Your task to perform on an android device: turn on airplane mode Image 0: 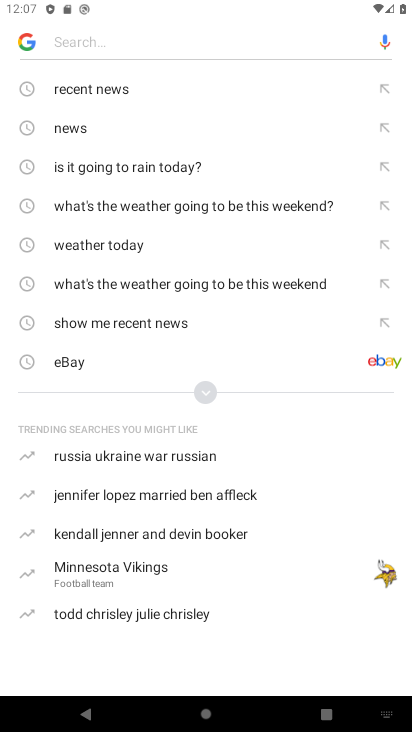
Step 0: press home button
Your task to perform on an android device: turn on airplane mode Image 1: 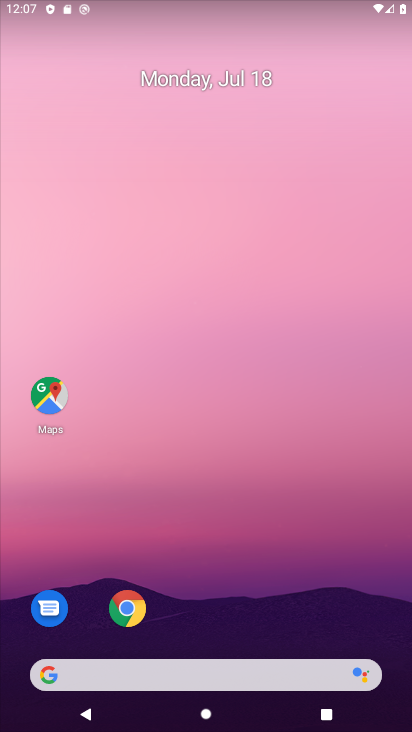
Step 1: drag from (237, 657) to (277, 49)
Your task to perform on an android device: turn on airplane mode Image 2: 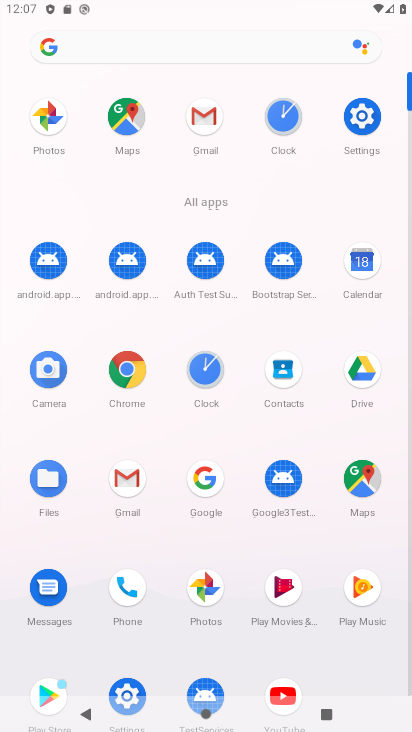
Step 2: click (129, 688)
Your task to perform on an android device: turn on airplane mode Image 3: 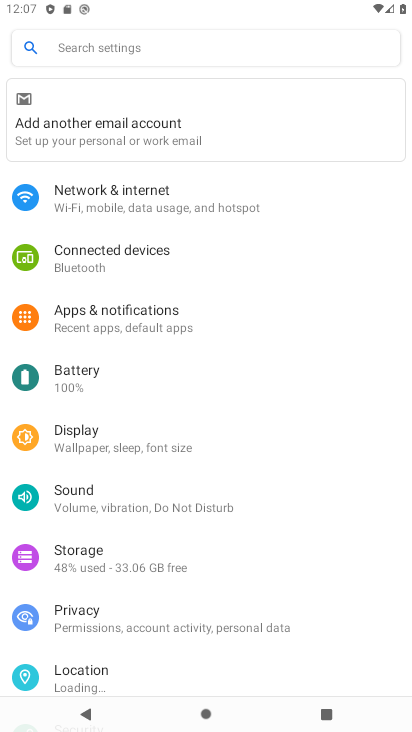
Step 3: click (189, 190)
Your task to perform on an android device: turn on airplane mode Image 4: 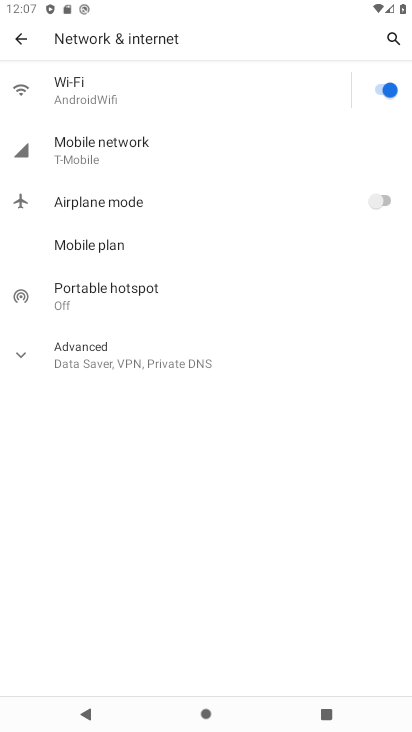
Step 4: click (394, 203)
Your task to perform on an android device: turn on airplane mode Image 5: 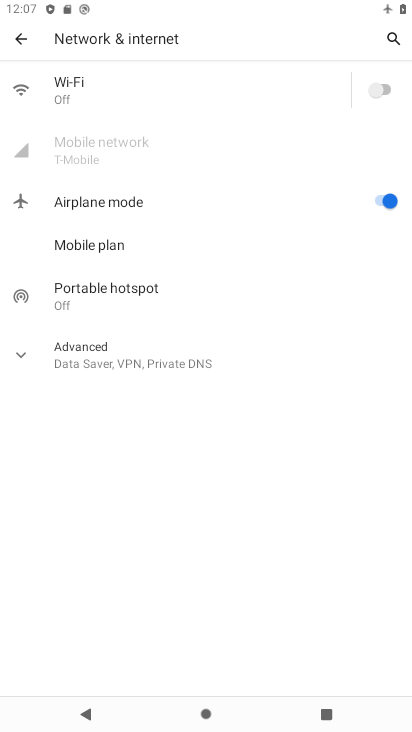
Step 5: task complete